Your task to perform on an android device: Open display settings Image 0: 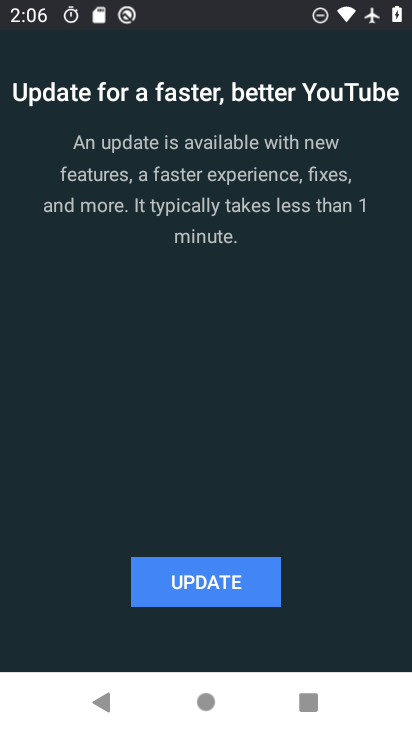
Step 0: press home button
Your task to perform on an android device: Open display settings Image 1: 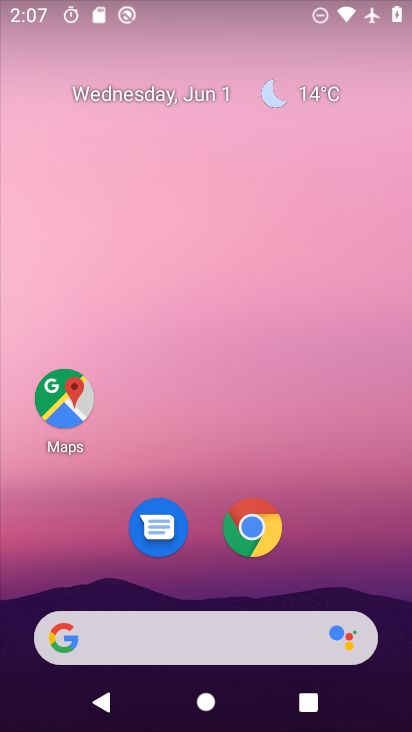
Step 1: drag from (254, 503) to (295, 197)
Your task to perform on an android device: Open display settings Image 2: 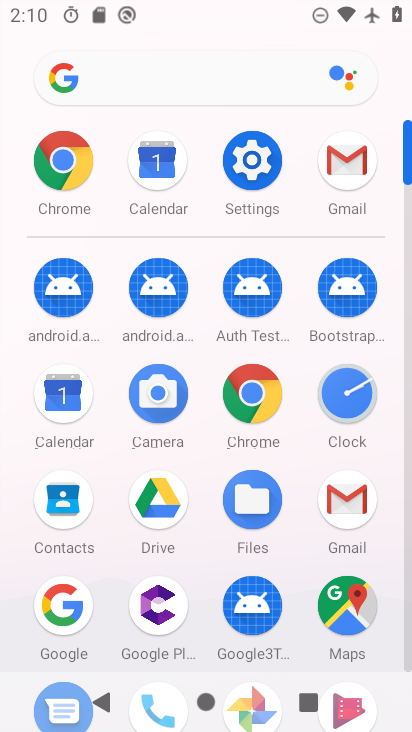
Step 2: click (272, 202)
Your task to perform on an android device: Open display settings Image 3: 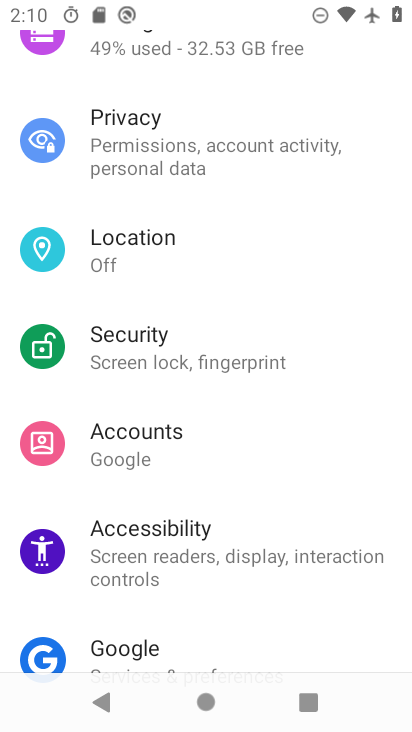
Step 3: drag from (192, 234) to (153, 598)
Your task to perform on an android device: Open display settings Image 4: 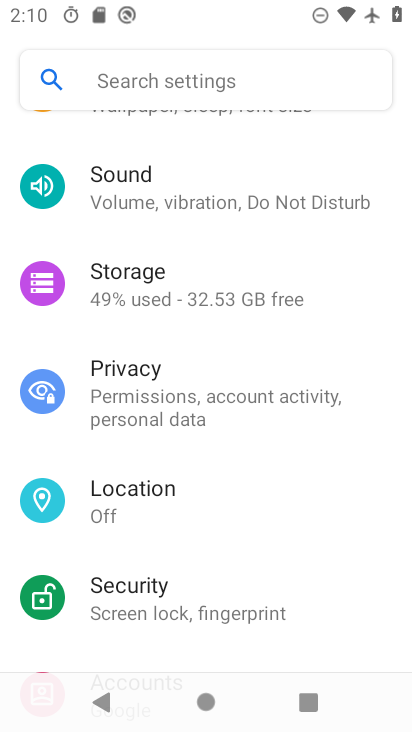
Step 4: drag from (157, 395) to (122, 720)
Your task to perform on an android device: Open display settings Image 5: 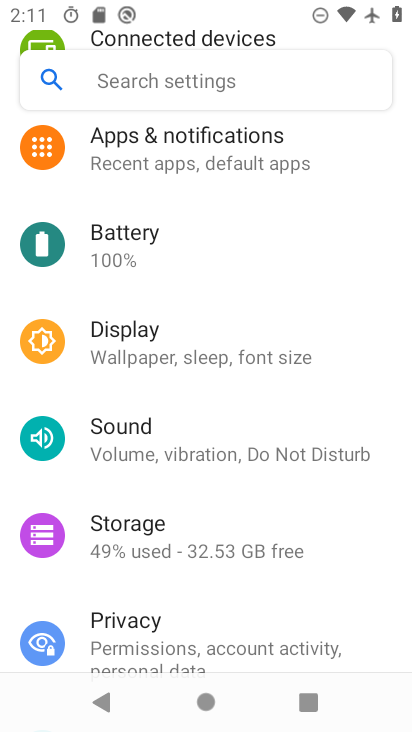
Step 5: click (142, 362)
Your task to perform on an android device: Open display settings Image 6: 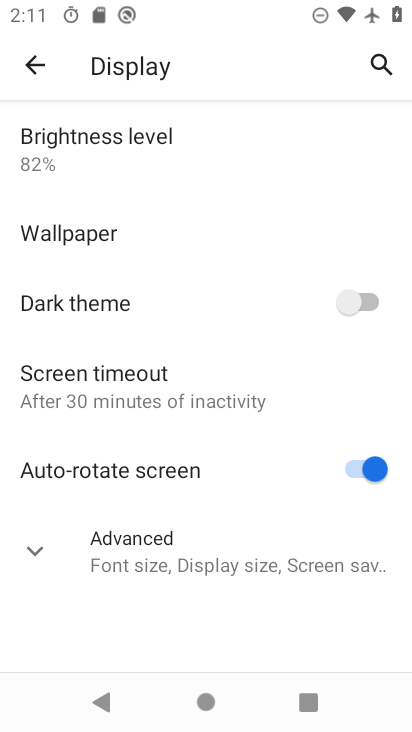
Step 6: task complete